Your task to perform on an android device: Google the capital of Ecuador Image 0: 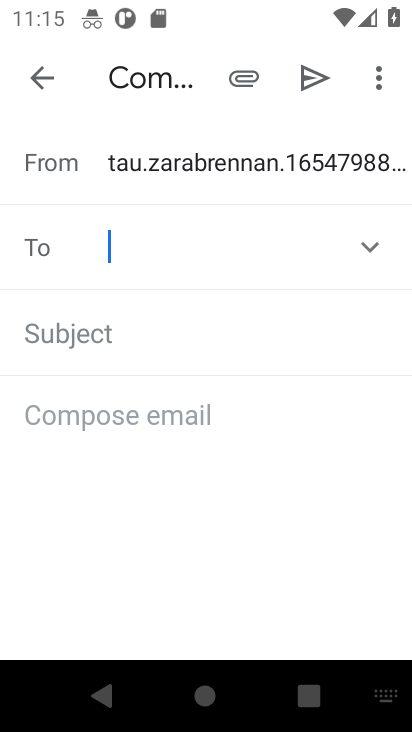
Step 0: press home button
Your task to perform on an android device: Google the capital of Ecuador Image 1: 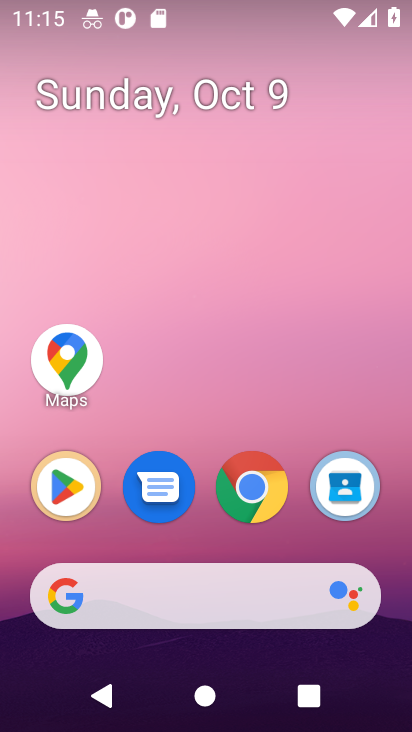
Step 1: click (254, 483)
Your task to perform on an android device: Google the capital of Ecuador Image 2: 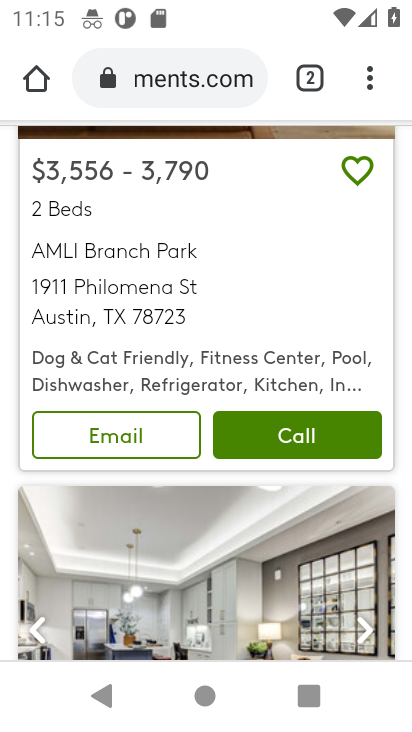
Step 2: click (182, 94)
Your task to perform on an android device: Google the capital of Ecuador Image 3: 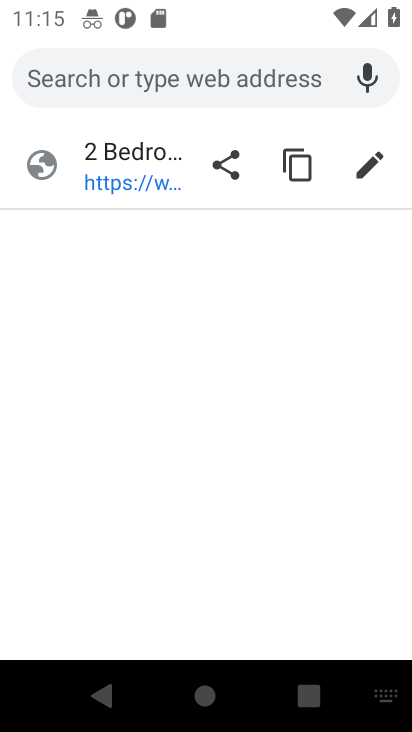
Step 3: type "capital of ecuador"
Your task to perform on an android device: Google the capital of Ecuador Image 4: 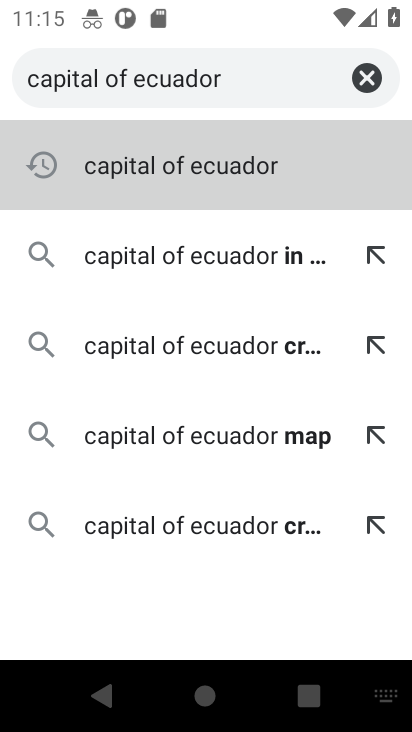
Step 4: press enter
Your task to perform on an android device: Google the capital of Ecuador Image 5: 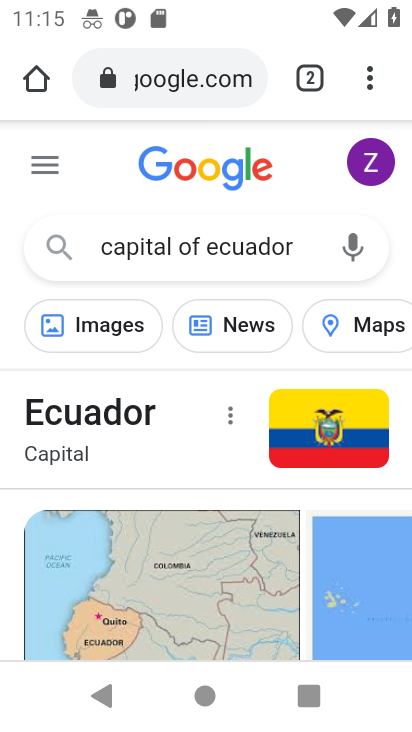
Step 5: task complete